Your task to perform on an android device: Go to notification settings Image 0: 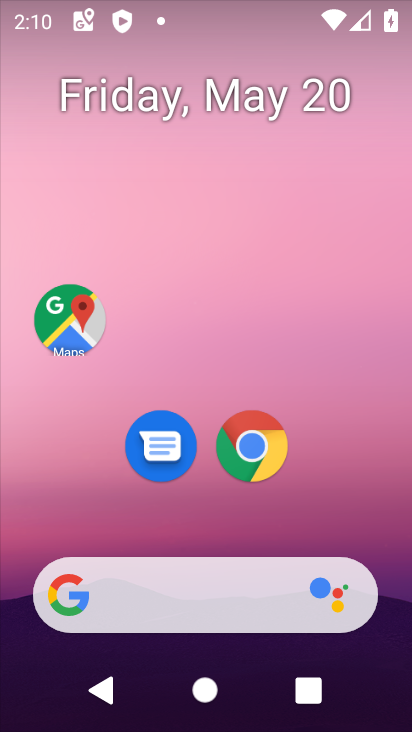
Step 0: drag from (364, 552) to (392, 78)
Your task to perform on an android device: Go to notification settings Image 1: 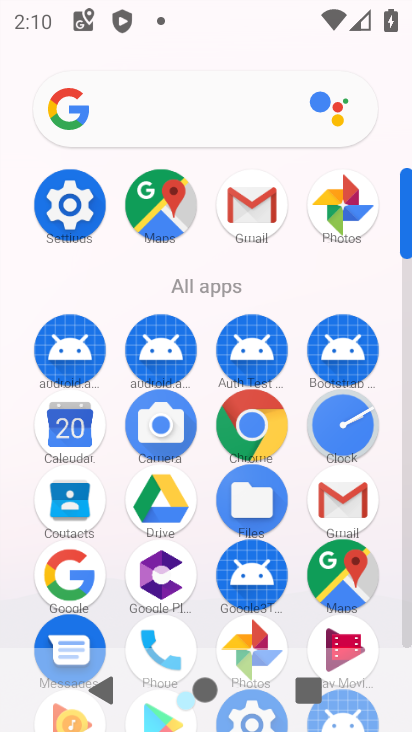
Step 1: click (74, 210)
Your task to perform on an android device: Go to notification settings Image 2: 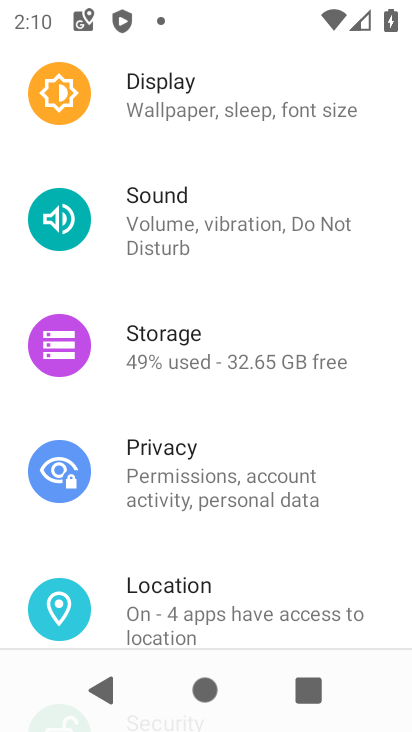
Step 2: drag from (278, 216) to (321, 444)
Your task to perform on an android device: Go to notification settings Image 3: 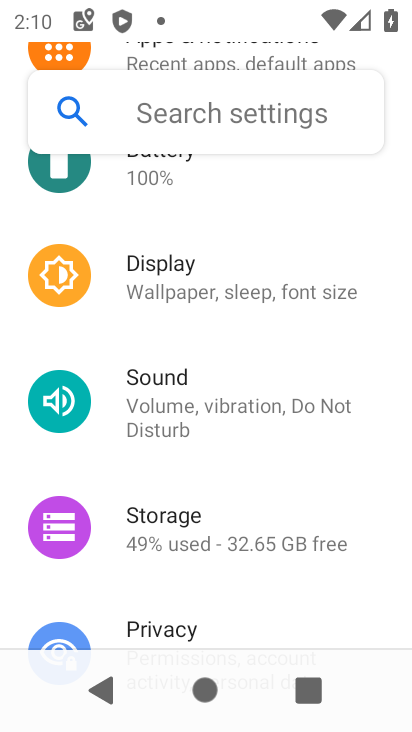
Step 3: drag from (279, 256) to (300, 439)
Your task to perform on an android device: Go to notification settings Image 4: 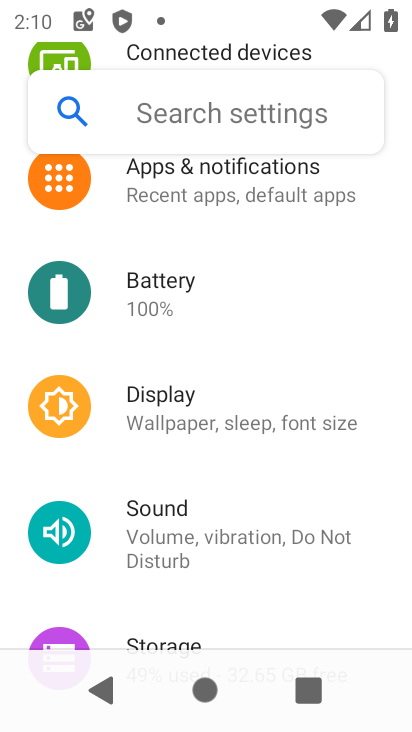
Step 4: click (223, 203)
Your task to perform on an android device: Go to notification settings Image 5: 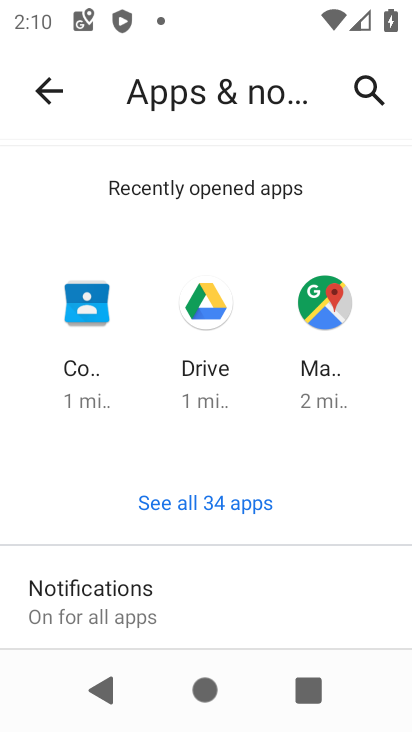
Step 5: task complete